Your task to perform on an android device: toggle pop-ups in chrome Image 0: 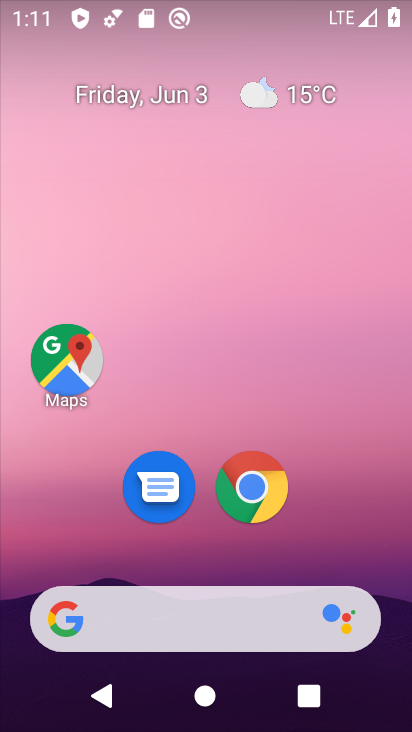
Step 0: click (259, 492)
Your task to perform on an android device: toggle pop-ups in chrome Image 1: 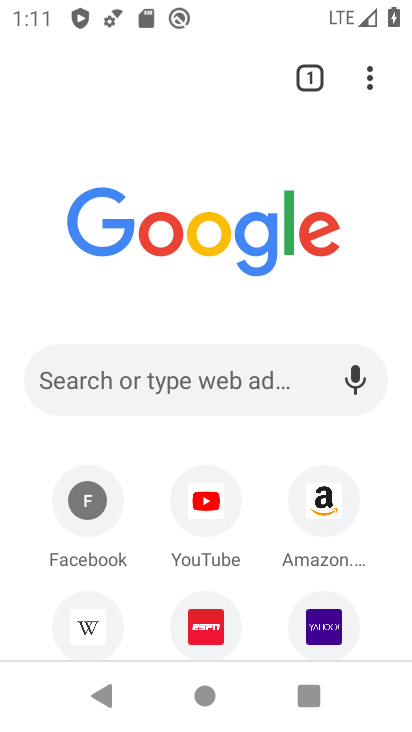
Step 1: click (370, 77)
Your task to perform on an android device: toggle pop-ups in chrome Image 2: 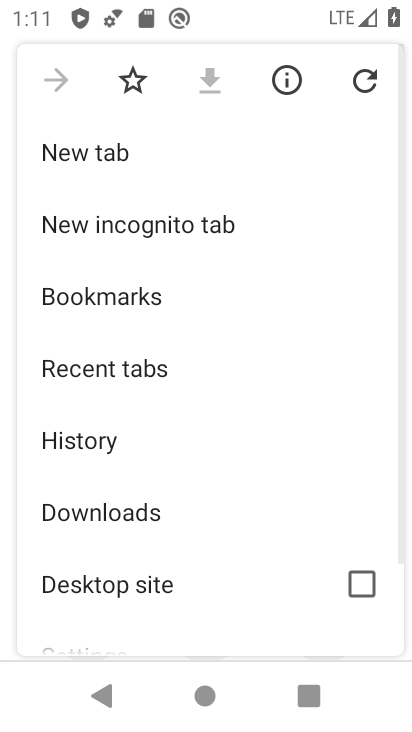
Step 2: drag from (215, 613) to (297, 181)
Your task to perform on an android device: toggle pop-ups in chrome Image 3: 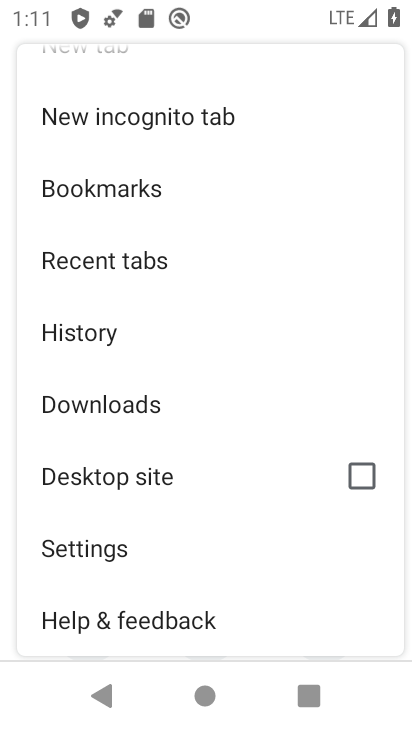
Step 3: click (118, 550)
Your task to perform on an android device: toggle pop-ups in chrome Image 4: 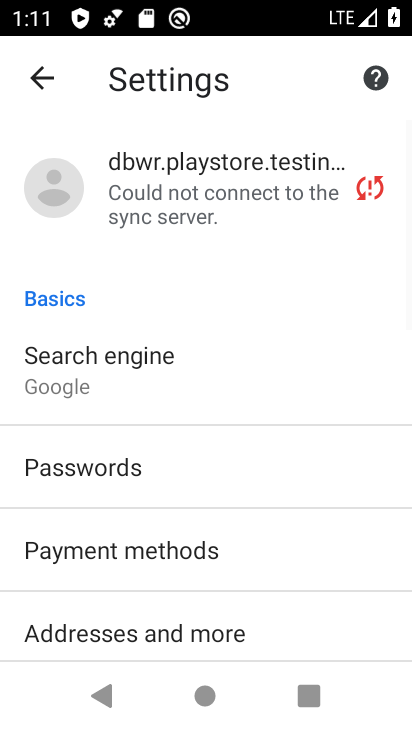
Step 4: drag from (291, 611) to (290, 245)
Your task to perform on an android device: toggle pop-ups in chrome Image 5: 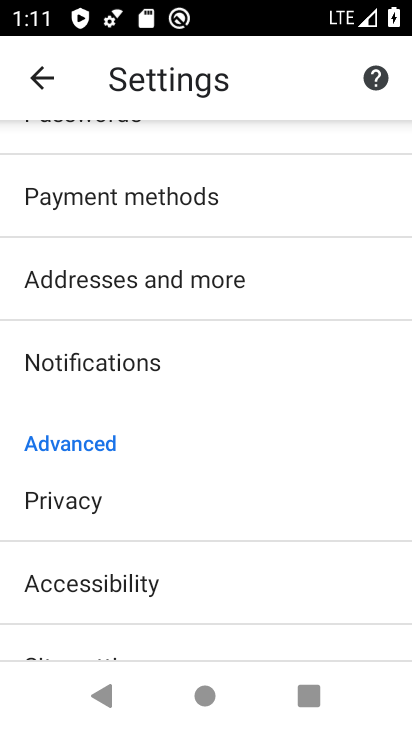
Step 5: drag from (288, 603) to (289, 281)
Your task to perform on an android device: toggle pop-ups in chrome Image 6: 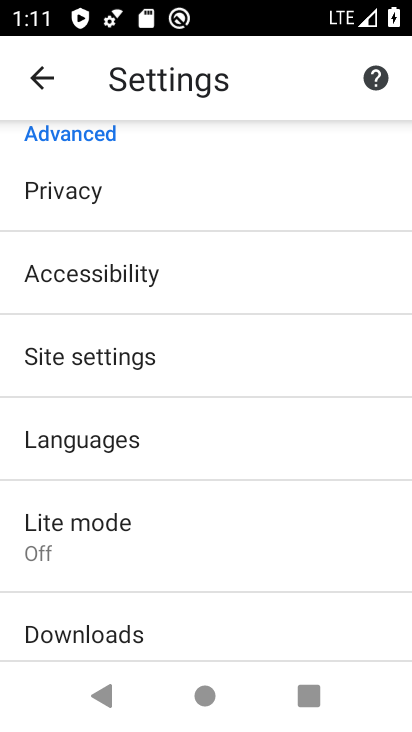
Step 6: click (109, 369)
Your task to perform on an android device: toggle pop-ups in chrome Image 7: 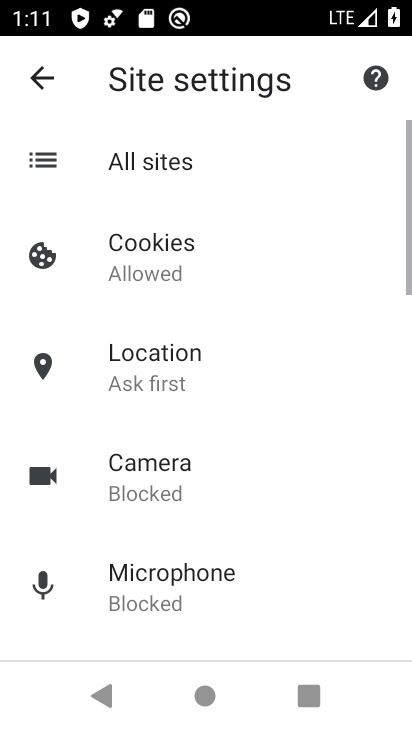
Step 7: drag from (263, 596) to (263, 173)
Your task to perform on an android device: toggle pop-ups in chrome Image 8: 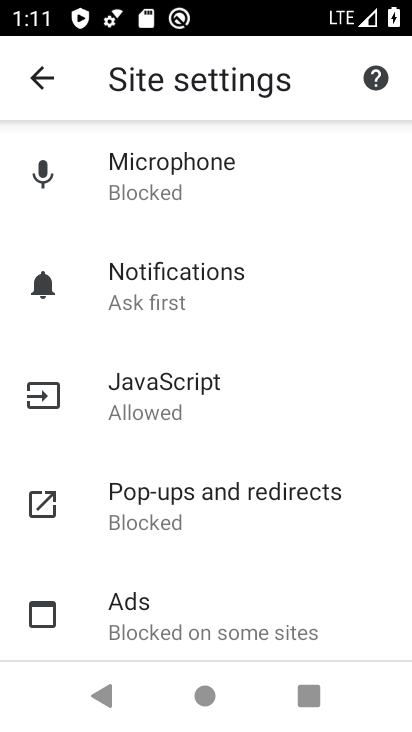
Step 8: click (213, 501)
Your task to perform on an android device: toggle pop-ups in chrome Image 9: 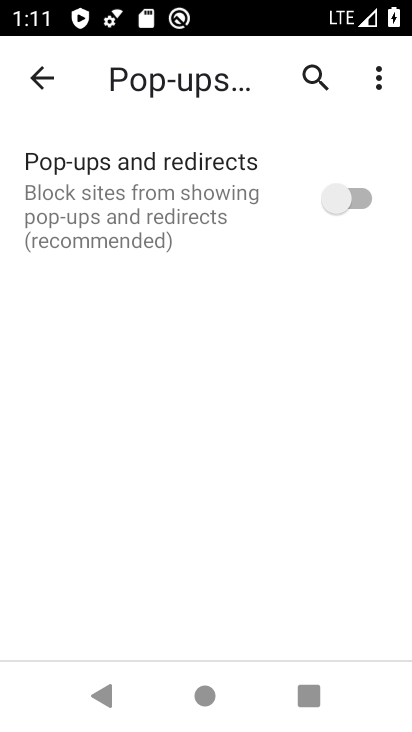
Step 9: click (354, 194)
Your task to perform on an android device: toggle pop-ups in chrome Image 10: 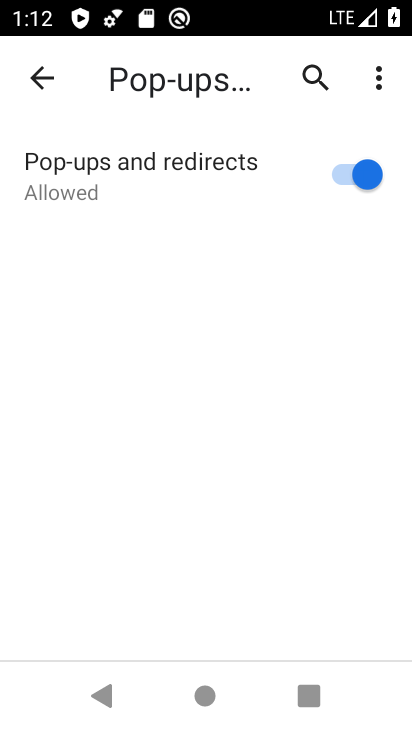
Step 10: task complete